Your task to perform on an android device: visit the assistant section in the google photos Image 0: 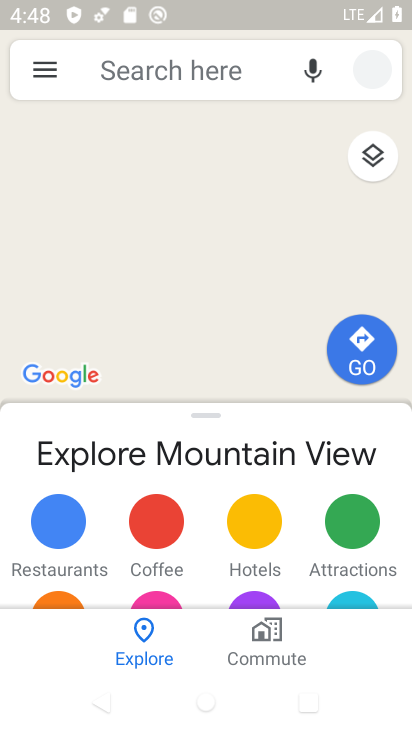
Step 0: drag from (197, 493) to (177, 103)
Your task to perform on an android device: visit the assistant section in the google photos Image 1: 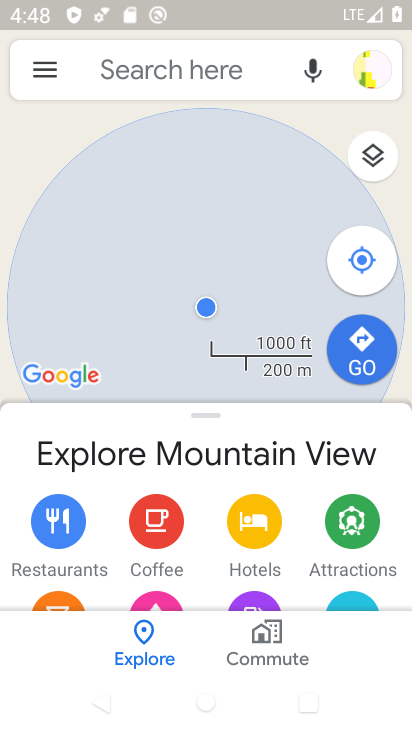
Step 1: press home button
Your task to perform on an android device: visit the assistant section in the google photos Image 2: 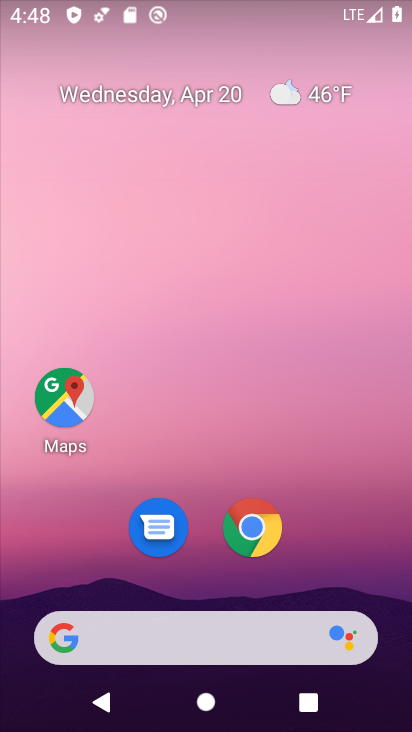
Step 2: drag from (327, 82) to (314, 25)
Your task to perform on an android device: visit the assistant section in the google photos Image 3: 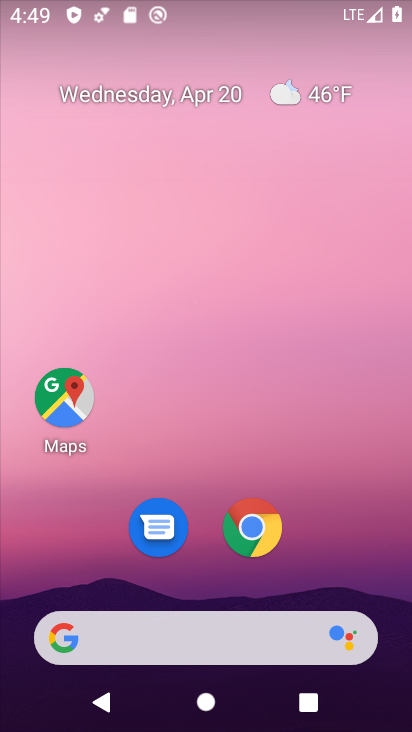
Step 3: drag from (317, 556) to (213, 12)
Your task to perform on an android device: visit the assistant section in the google photos Image 4: 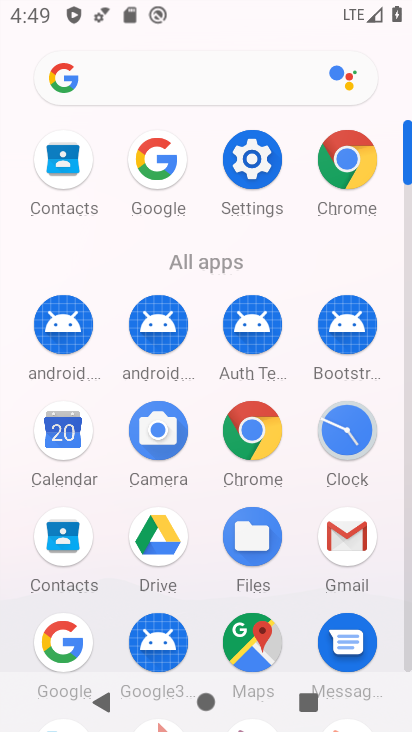
Step 4: drag from (214, 614) to (213, 120)
Your task to perform on an android device: visit the assistant section in the google photos Image 5: 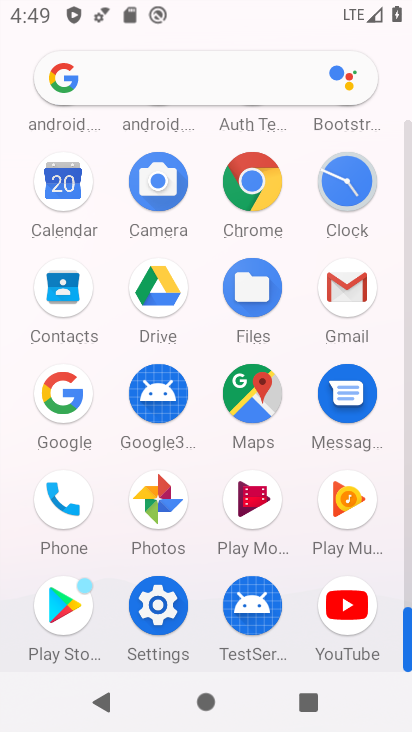
Step 5: click (158, 505)
Your task to perform on an android device: visit the assistant section in the google photos Image 6: 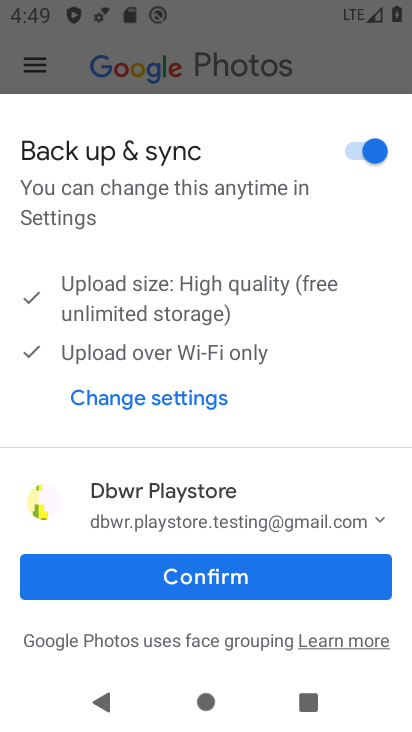
Step 6: click (269, 574)
Your task to perform on an android device: visit the assistant section in the google photos Image 7: 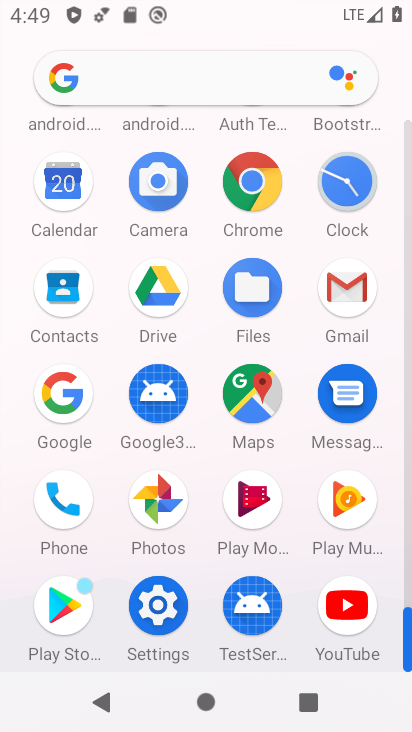
Step 7: click (149, 495)
Your task to perform on an android device: visit the assistant section in the google photos Image 8: 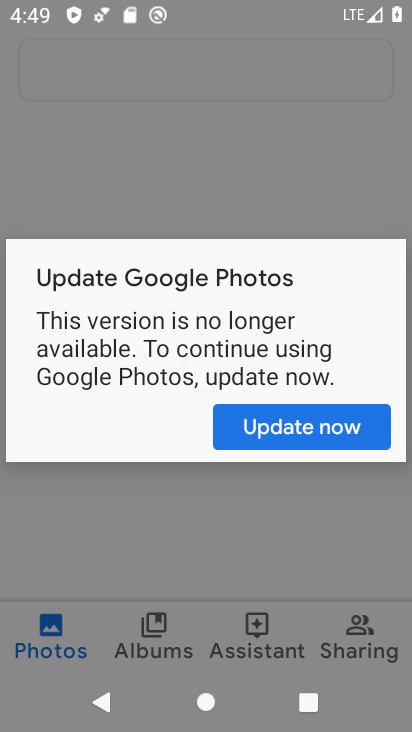
Step 8: click (258, 639)
Your task to perform on an android device: visit the assistant section in the google photos Image 9: 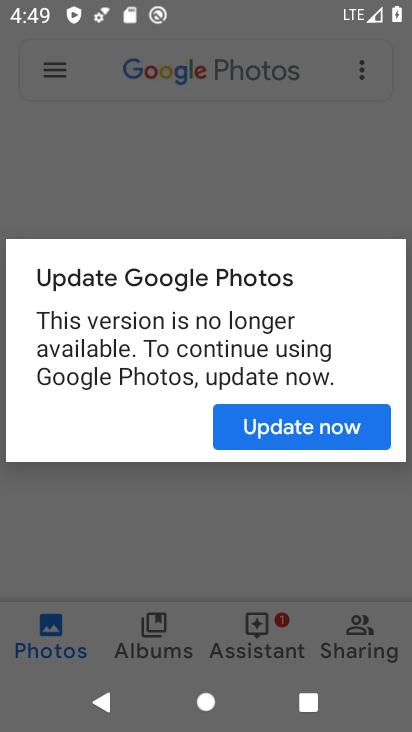
Step 9: click (337, 416)
Your task to perform on an android device: visit the assistant section in the google photos Image 10: 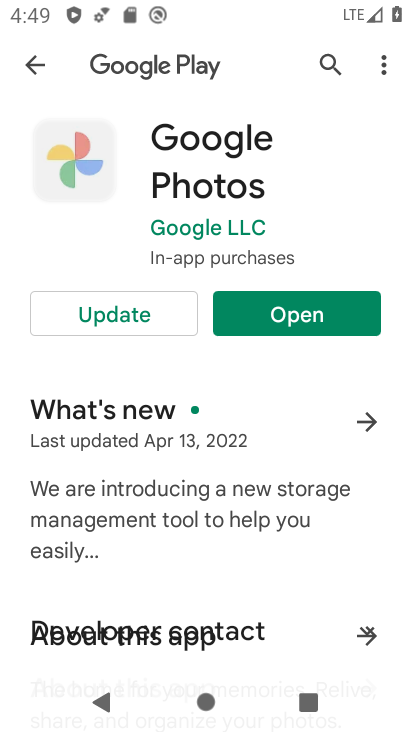
Step 10: click (104, 313)
Your task to perform on an android device: visit the assistant section in the google photos Image 11: 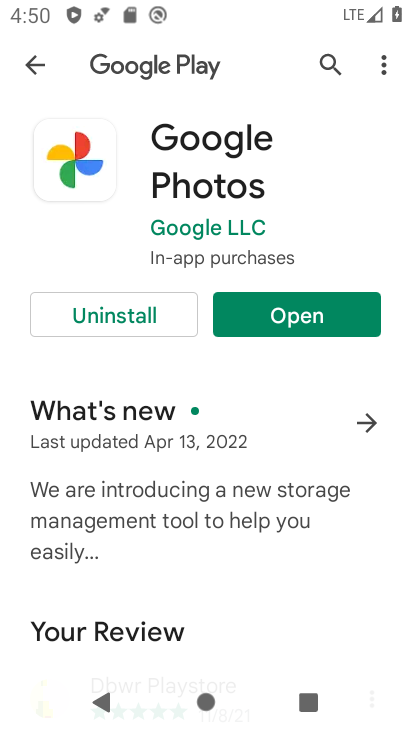
Step 11: click (263, 309)
Your task to perform on an android device: visit the assistant section in the google photos Image 12: 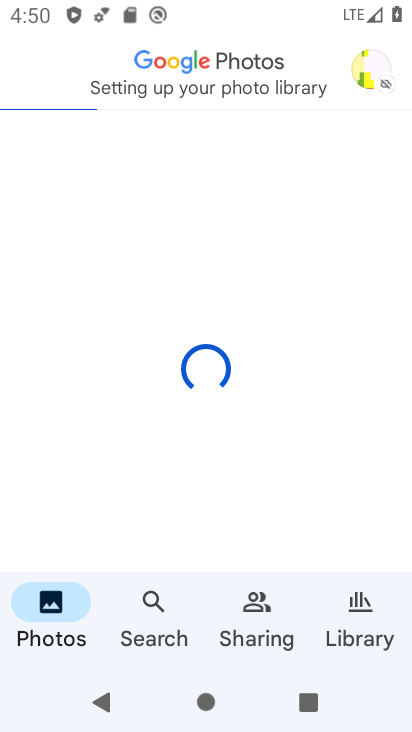
Step 12: click (370, 65)
Your task to perform on an android device: visit the assistant section in the google photos Image 13: 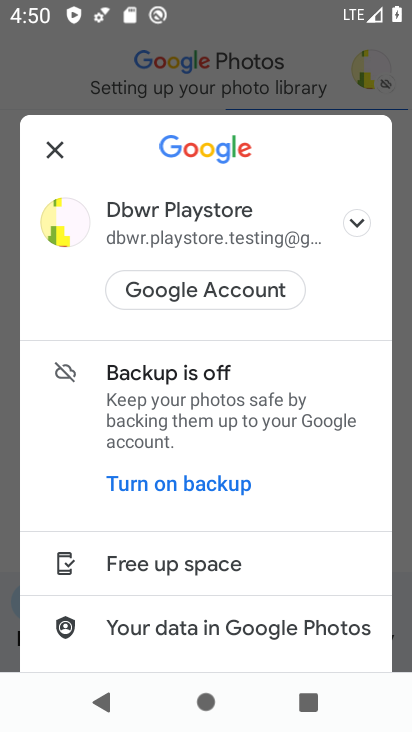
Step 13: click (52, 148)
Your task to perform on an android device: visit the assistant section in the google photos Image 14: 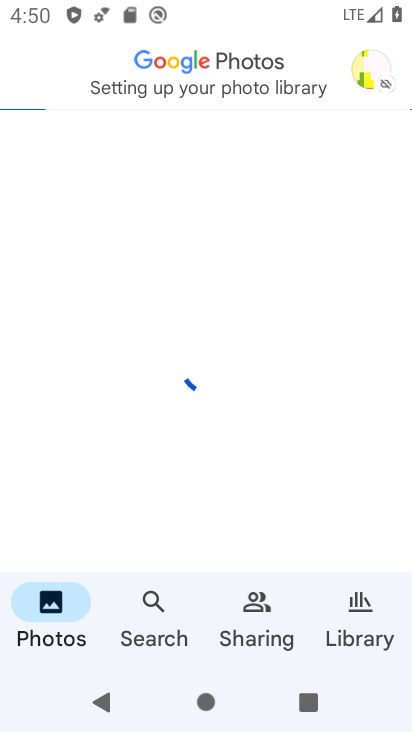
Step 14: click (140, 621)
Your task to perform on an android device: visit the assistant section in the google photos Image 15: 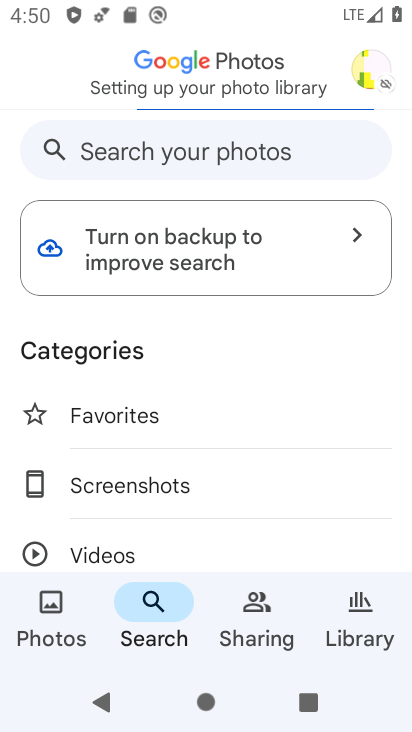
Step 15: click (150, 154)
Your task to perform on an android device: visit the assistant section in the google photos Image 16: 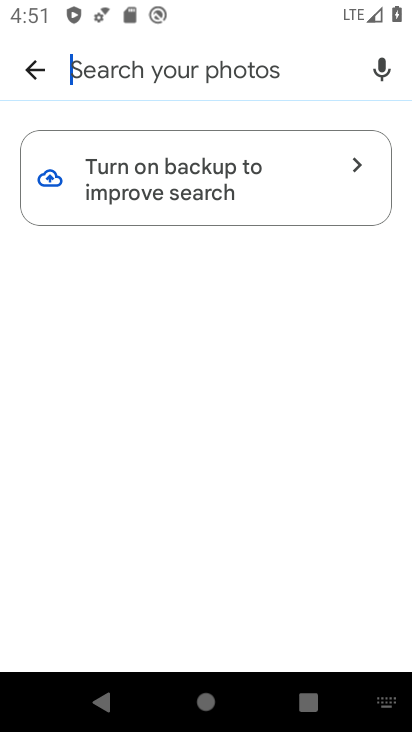
Step 16: type "assistant"
Your task to perform on an android device: visit the assistant section in the google photos Image 17: 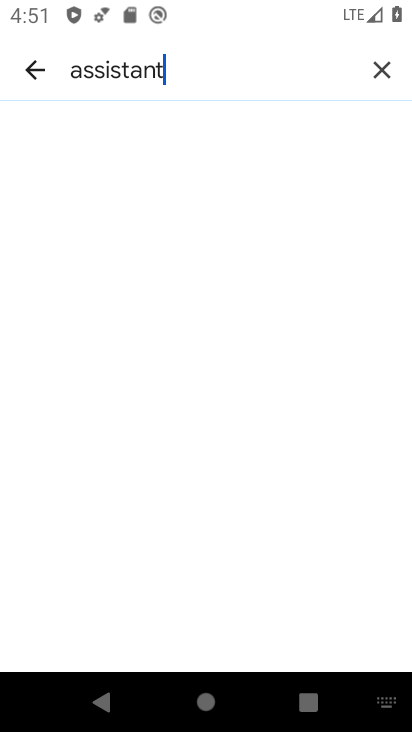
Step 17: click (36, 67)
Your task to perform on an android device: visit the assistant section in the google photos Image 18: 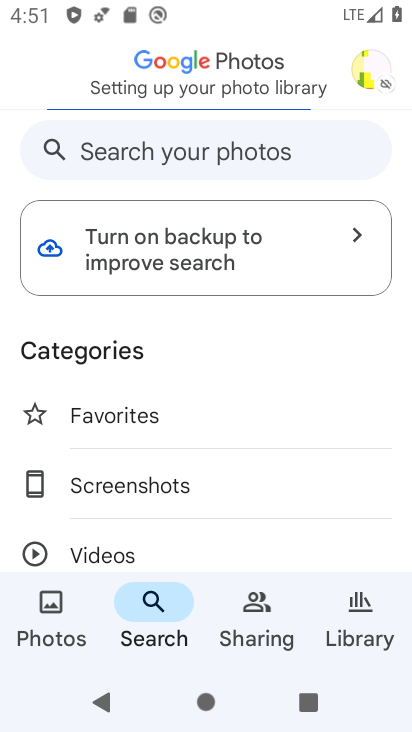
Step 18: click (354, 626)
Your task to perform on an android device: visit the assistant section in the google photos Image 19: 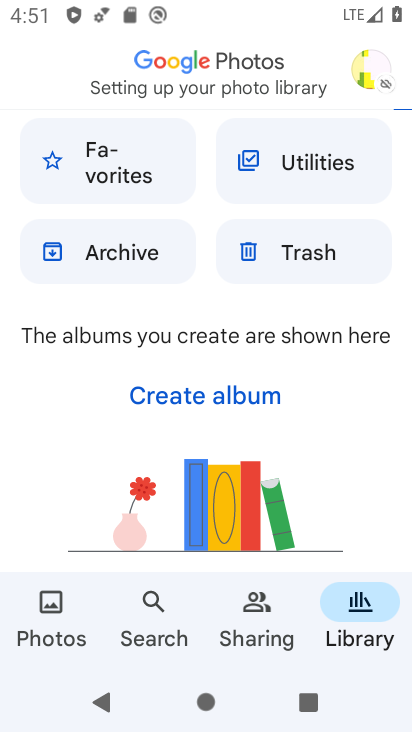
Step 19: drag from (188, 508) to (164, 182)
Your task to perform on an android device: visit the assistant section in the google photos Image 20: 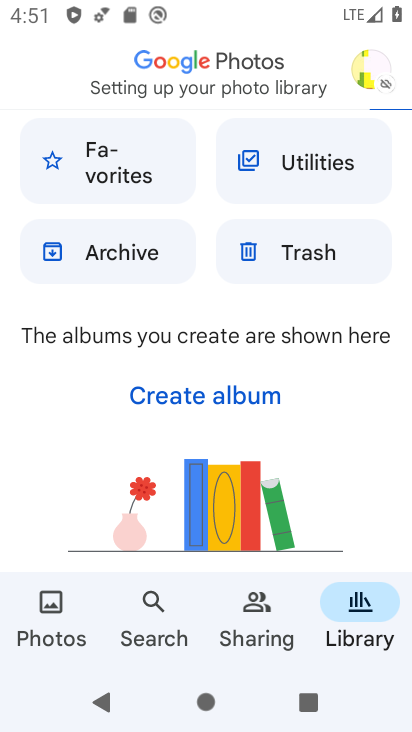
Step 20: click (249, 73)
Your task to perform on an android device: visit the assistant section in the google photos Image 21: 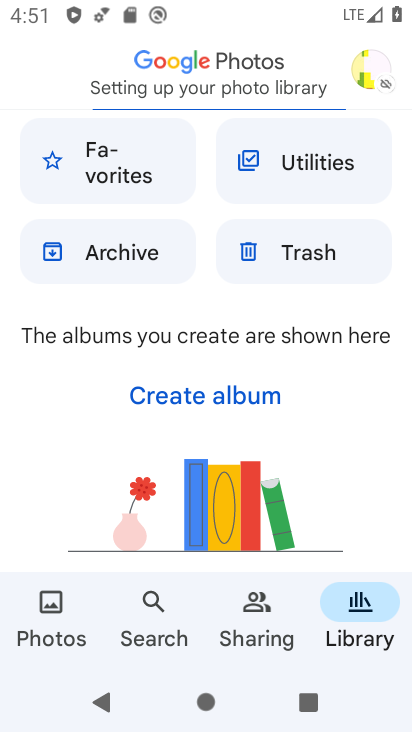
Step 21: click (366, 74)
Your task to perform on an android device: visit the assistant section in the google photos Image 22: 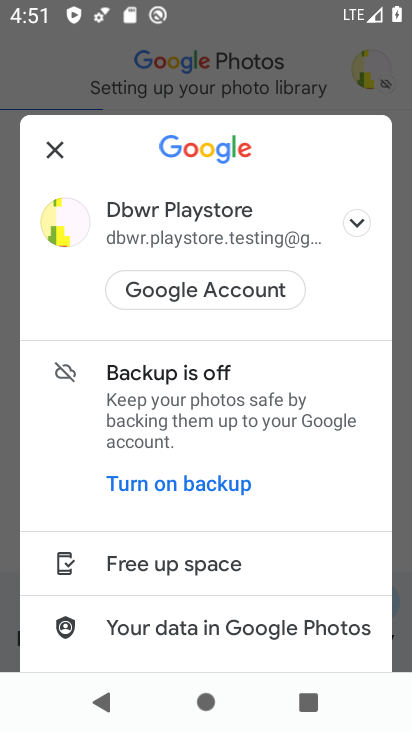
Step 22: drag from (217, 392) to (213, 202)
Your task to perform on an android device: visit the assistant section in the google photos Image 23: 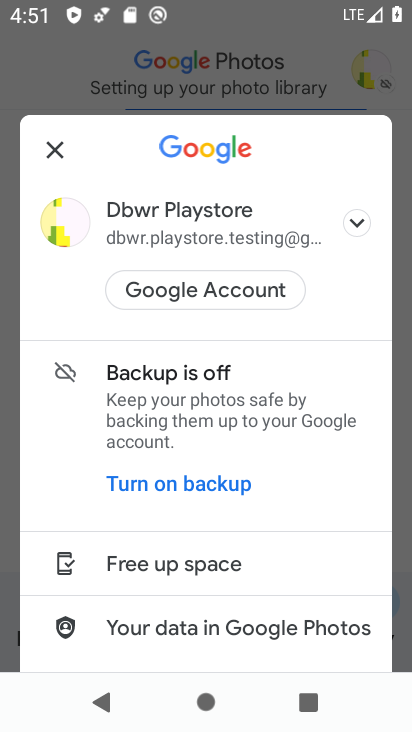
Step 23: drag from (231, 567) to (212, 225)
Your task to perform on an android device: visit the assistant section in the google photos Image 24: 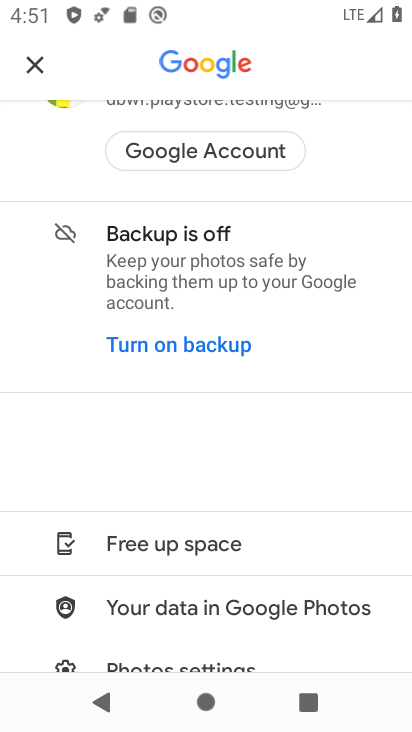
Step 24: click (216, 555)
Your task to perform on an android device: visit the assistant section in the google photos Image 25: 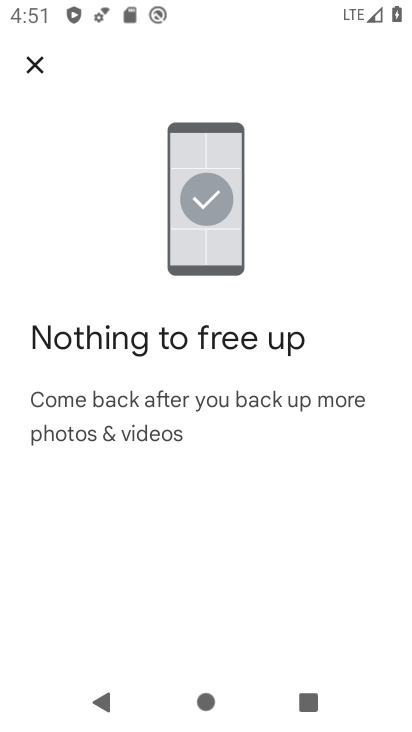
Step 25: click (35, 67)
Your task to perform on an android device: visit the assistant section in the google photos Image 26: 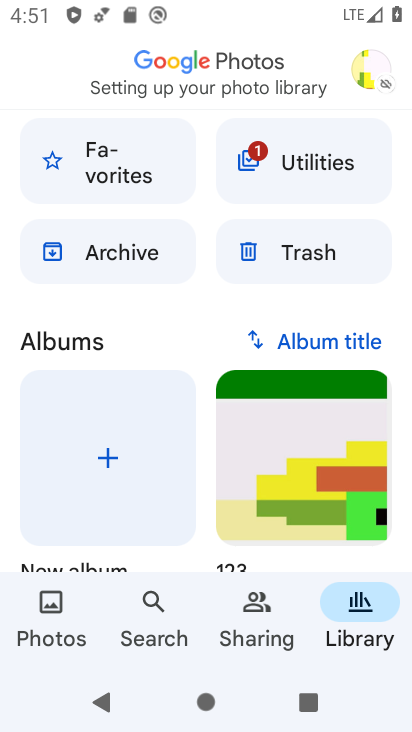
Step 26: click (358, 57)
Your task to perform on an android device: visit the assistant section in the google photos Image 27: 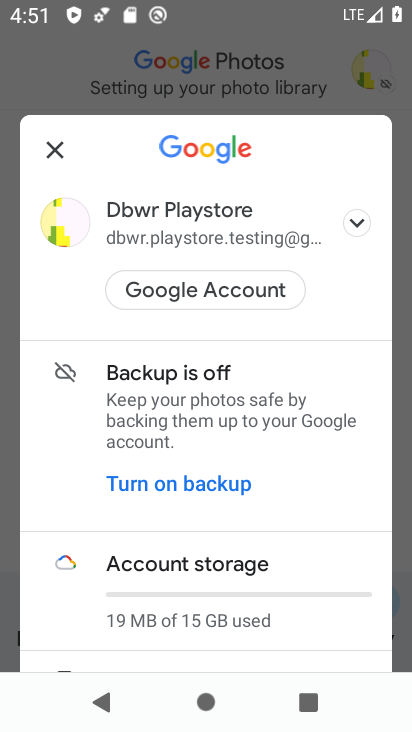
Step 27: drag from (237, 574) to (260, 231)
Your task to perform on an android device: visit the assistant section in the google photos Image 28: 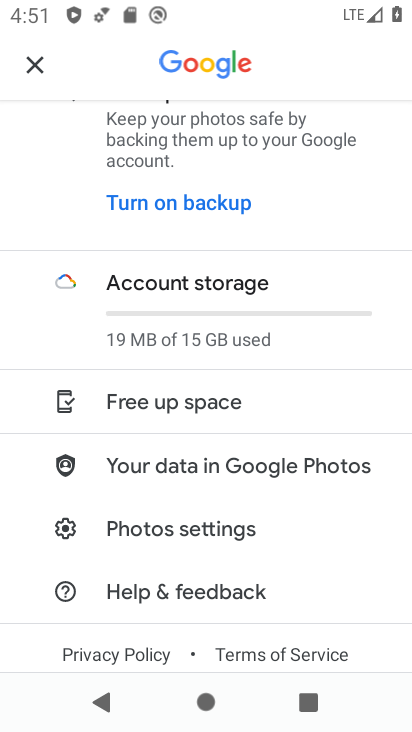
Step 28: click (221, 526)
Your task to perform on an android device: visit the assistant section in the google photos Image 29: 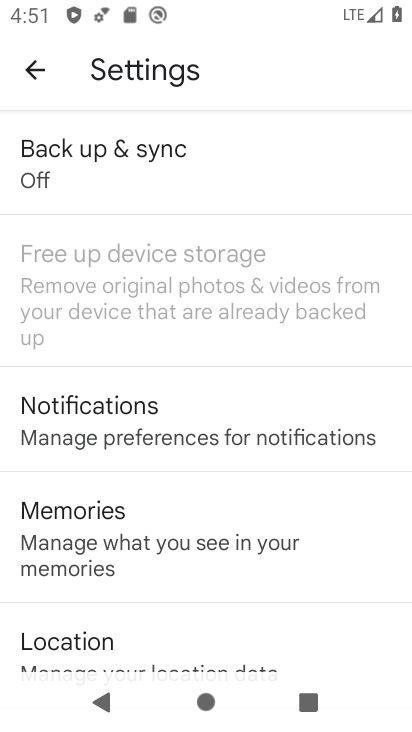
Step 29: drag from (226, 594) to (194, 121)
Your task to perform on an android device: visit the assistant section in the google photos Image 30: 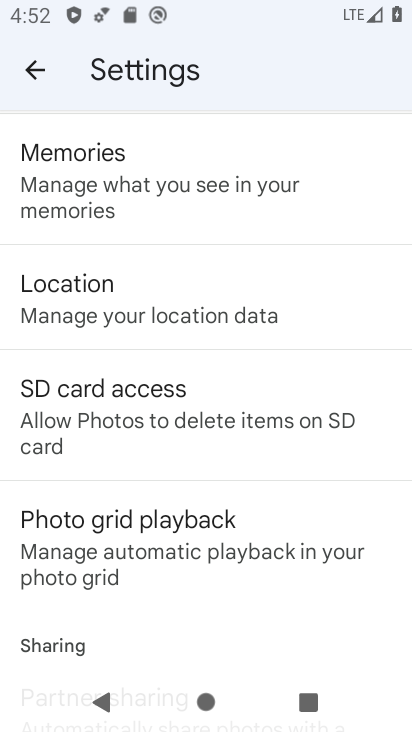
Step 30: click (30, 75)
Your task to perform on an android device: visit the assistant section in the google photos Image 31: 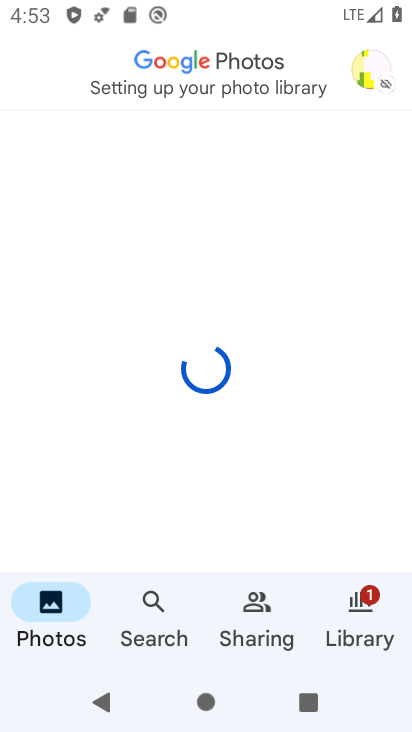
Step 31: click (261, 614)
Your task to perform on an android device: visit the assistant section in the google photos Image 32: 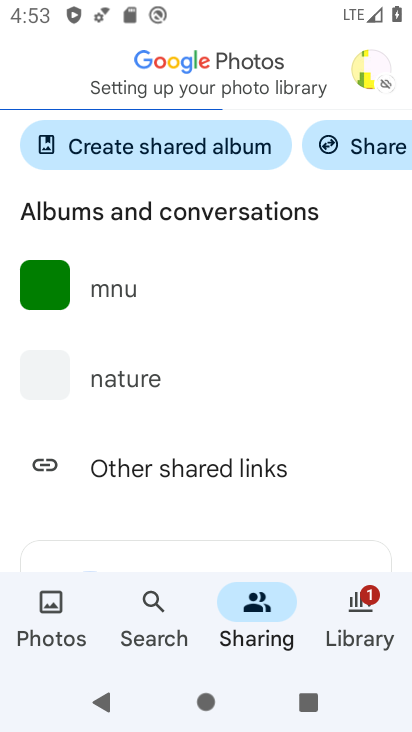
Step 32: click (143, 615)
Your task to perform on an android device: visit the assistant section in the google photos Image 33: 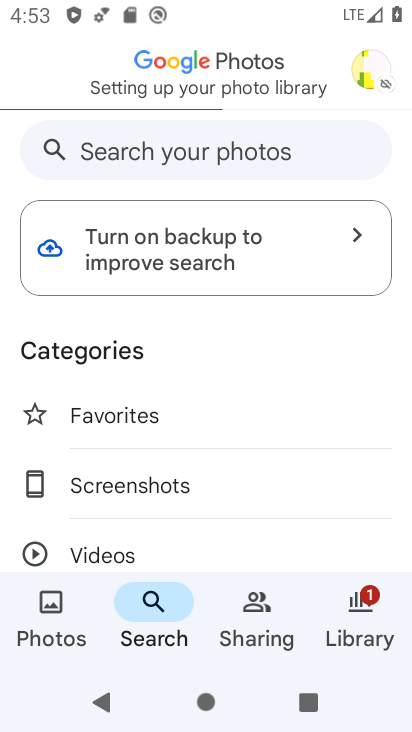
Step 33: click (36, 606)
Your task to perform on an android device: visit the assistant section in the google photos Image 34: 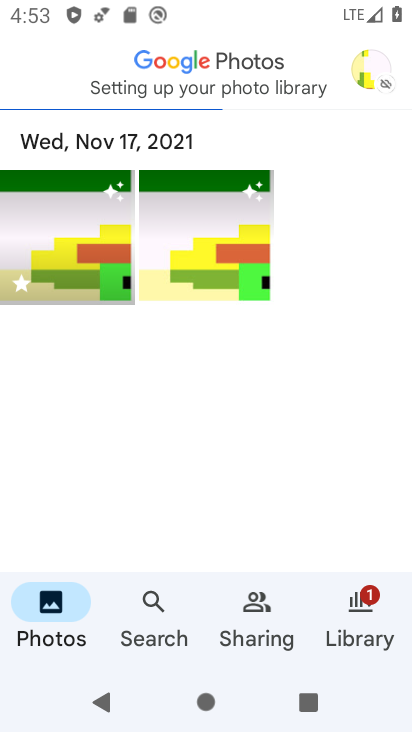
Step 34: task complete